Your task to perform on an android device: Open network settings Image 0: 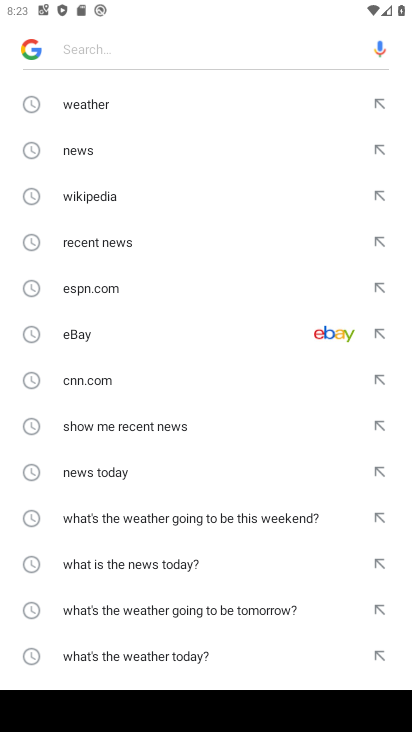
Step 0: drag from (163, 676) to (289, 65)
Your task to perform on an android device: Open network settings Image 1: 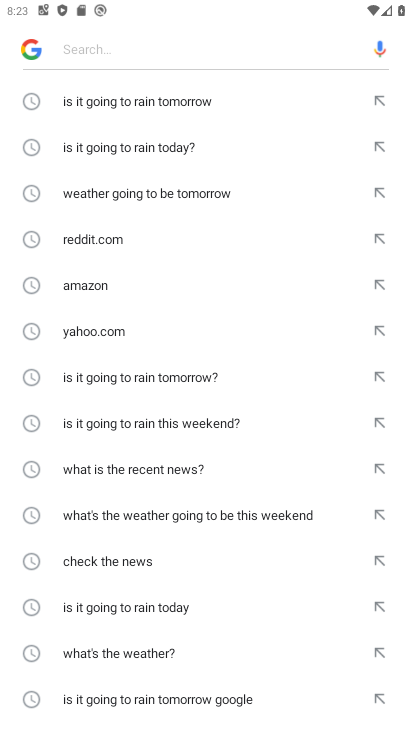
Step 1: press home button
Your task to perform on an android device: Open network settings Image 2: 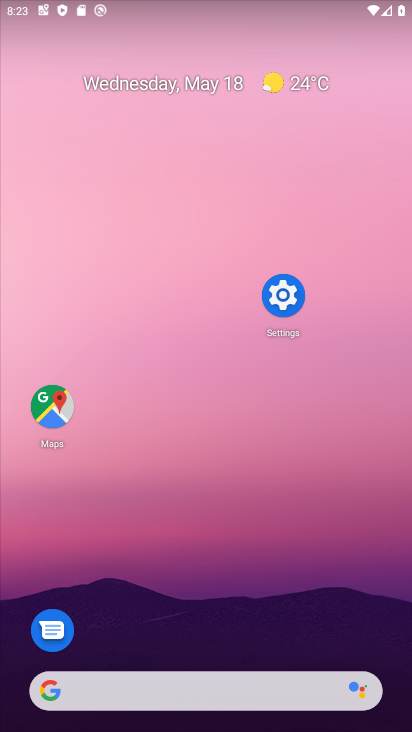
Step 2: drag from (171, 614) to (210, 295)
Your task to perform on an android device: Open network settings Image 3: 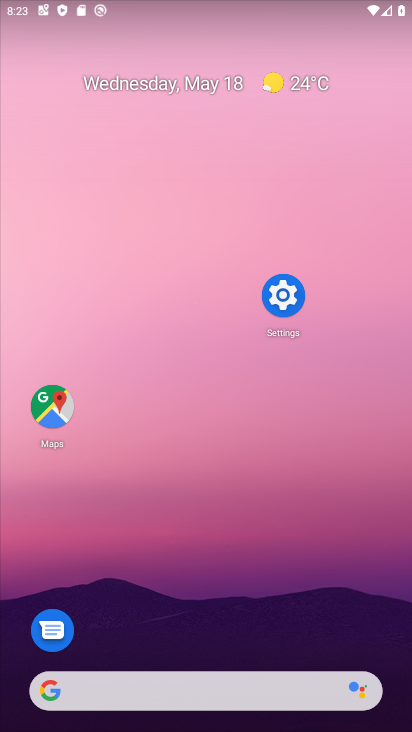
Step 3: click (282, 296)
Your task to perform on an android device: Open network settings Image 4: 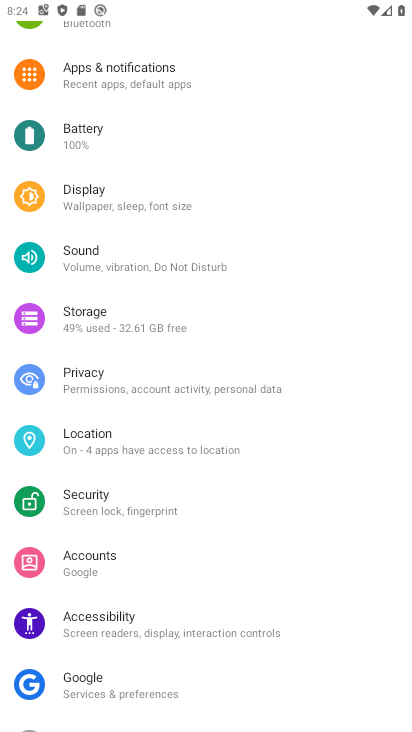
Step 4: drag from (196, 199) to (233, 428)
Your task to perform on an android device: Open network settings Image 5: 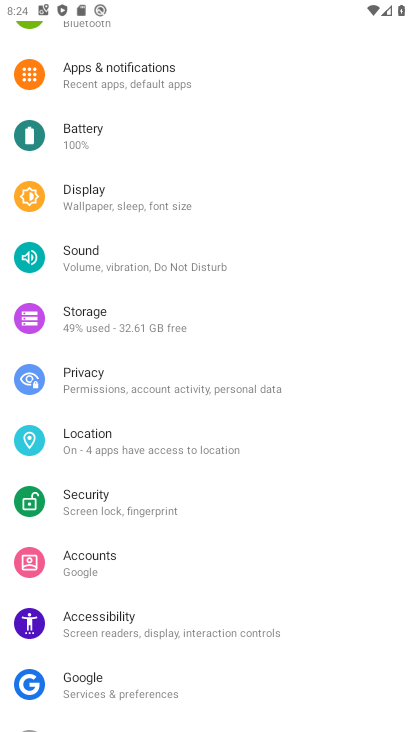
Step 5: click (308, 507)
Your task to perform on an android device: Open network settings Image 6: 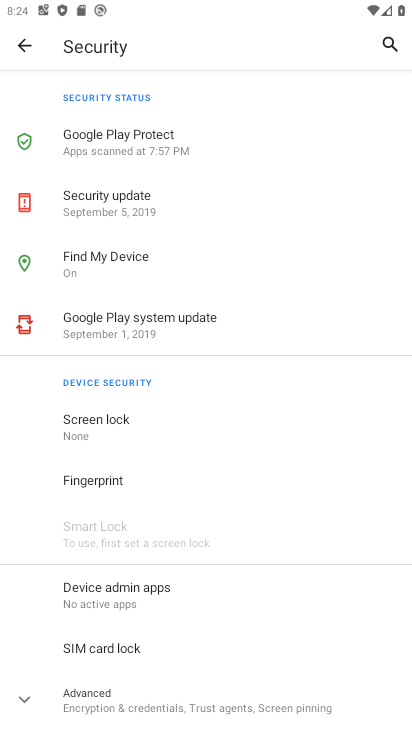
Step 6: click (23, 48)
Your task to perform on an android device: Open network settings Image 7: 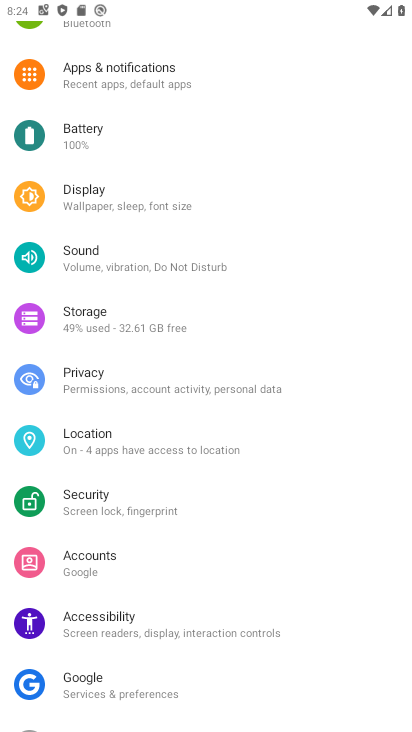
Step 7: drag from (232, 109) to (266, 344)
Your task to perform on an android device: Open network settings Image 8: 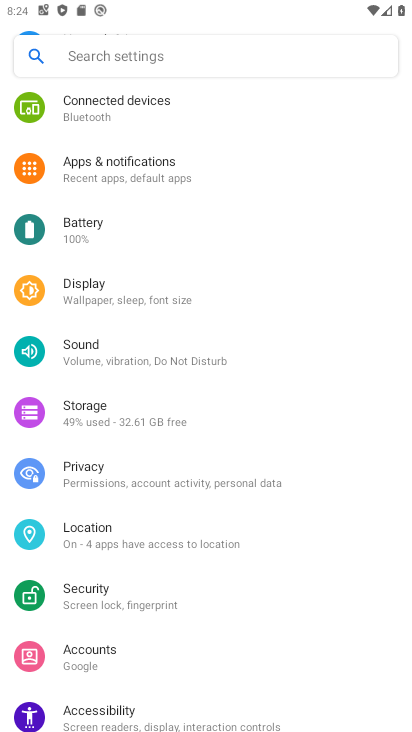
Step 8: drag from (226, 91) to (229, 552)
Your task to perform on an android device: Open network settings Image 9: 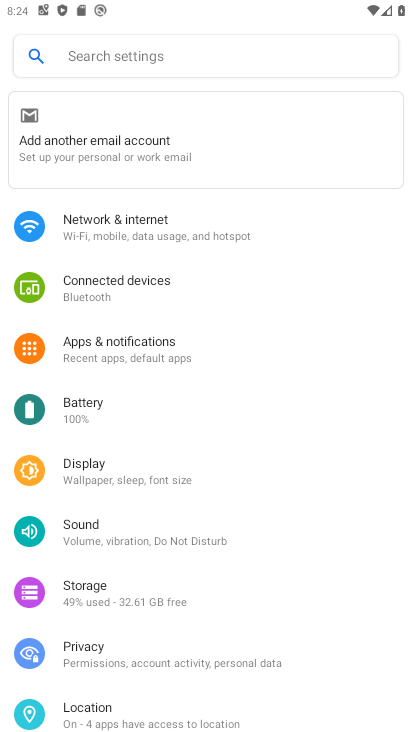
Step 9: click (145, 222)
Your task to perform on an android device: Open network settings Image 10: 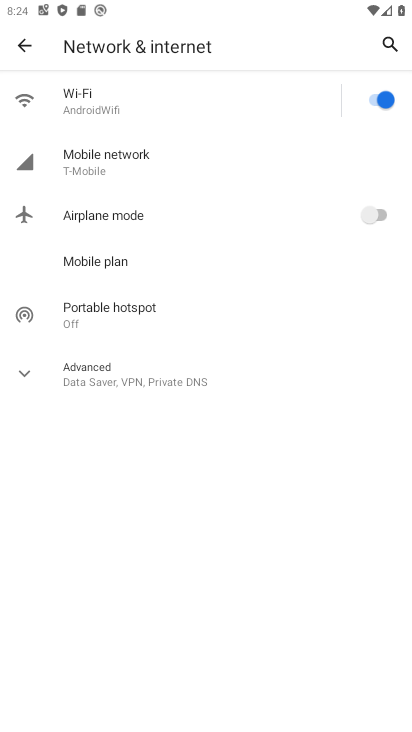
Step 10: click (111, 367)
Your task to perform on an android device: Open network settings Image 11: 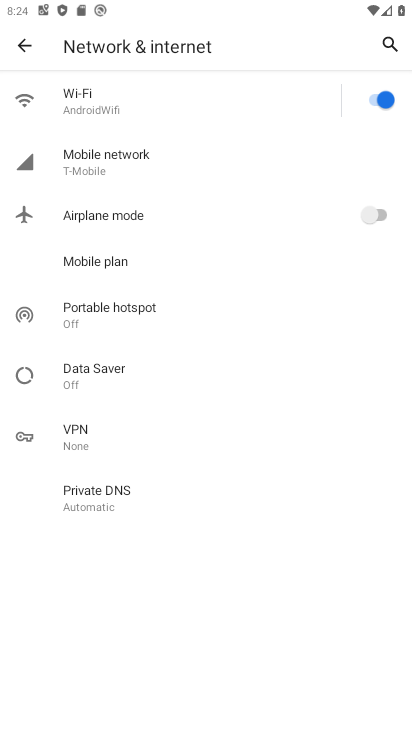
Step 11: click (102, 158)
Your task to perform on an android device: Open network settings Image 12: 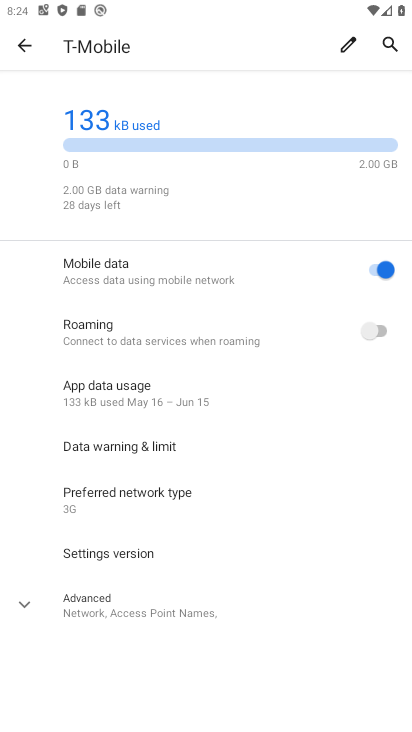
Step 12: click (85, 605)
Your task to perform on an android device: Open network settings Image 13: 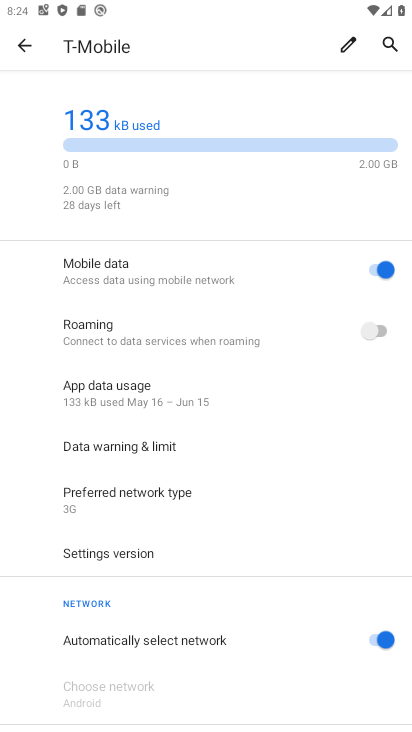
Step 13: task complete